Your task to perform on an android device: Go to notification settings Image 0: 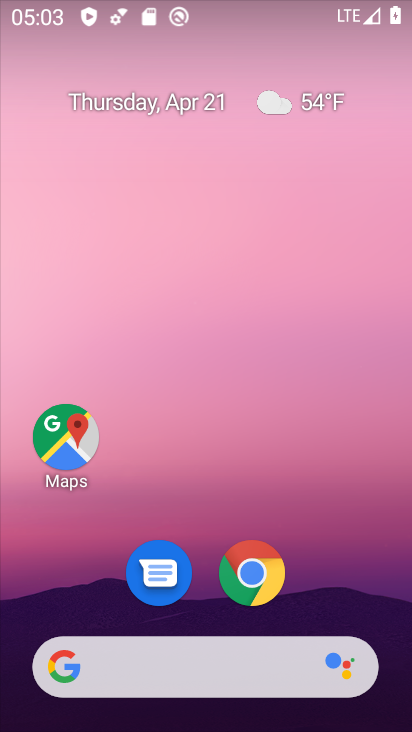
Step 0: drag from (384, 618) to (337, 190)
Your task to perform on an android device: Go to notification settings Image 1: 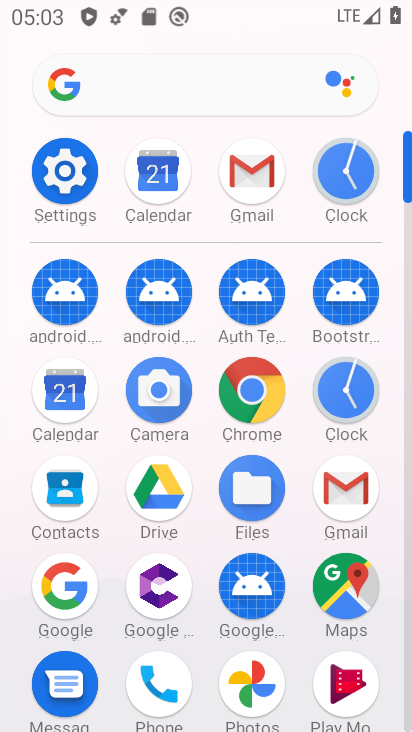
Step 1: click (408, 690)
Your task to perform on an android device: Go to notification settings Image 2: 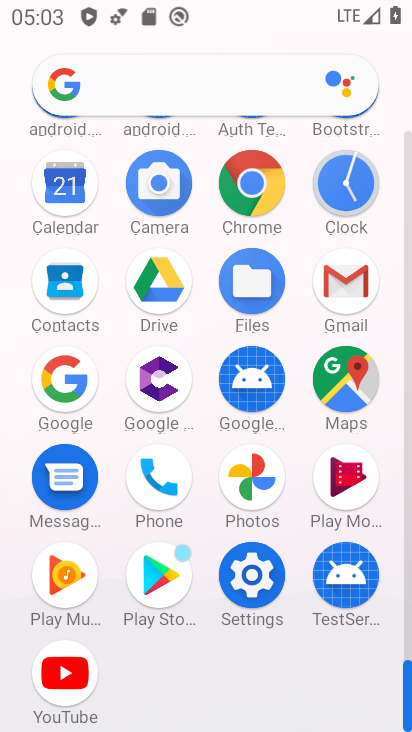
Step 2: click (253, 572)
Your task to perform on an android device: Go to notification settings Image 3: 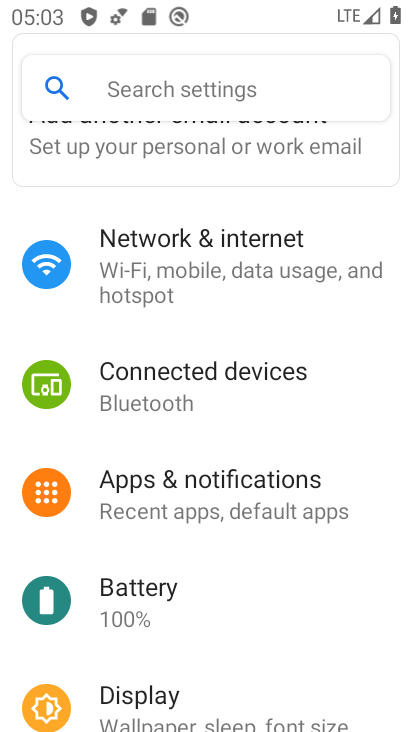
Step 3: click (179, 485)
Your task to perform on an android device: Go to notification settings Image 4: 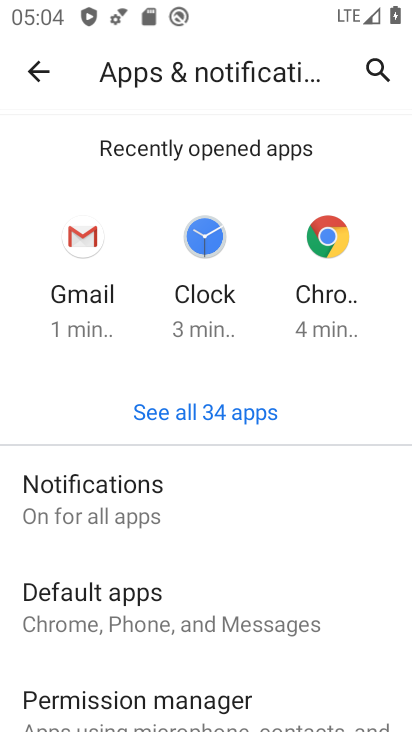
Step 4: click (81, 495)
Your task to perform on an android device: Go to notification settings Image 5: 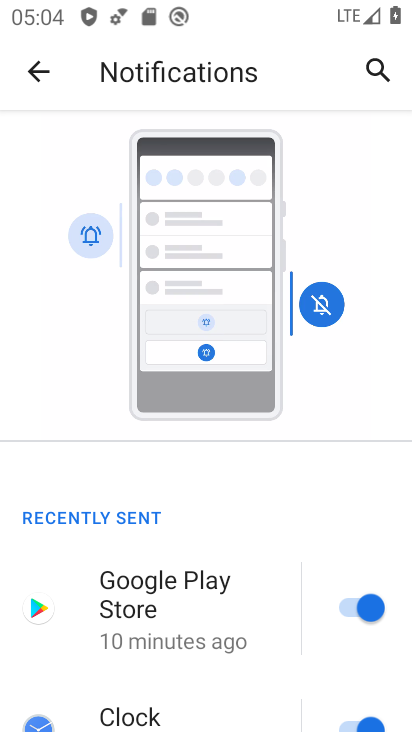
Step 5: drag from (301, 668) to (262, 284)
Your task to perform on an android device: Go to notification settings Image 6: 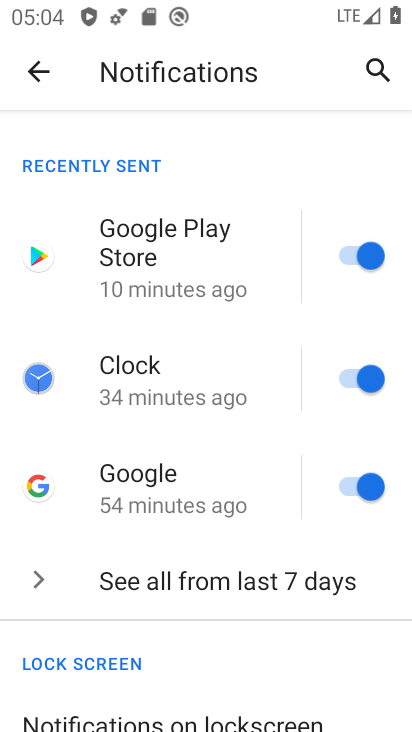
Step 6: drag from (291, 668) to (302, 319)
Your task to perform on an android device: Go to notification settings Image 7: 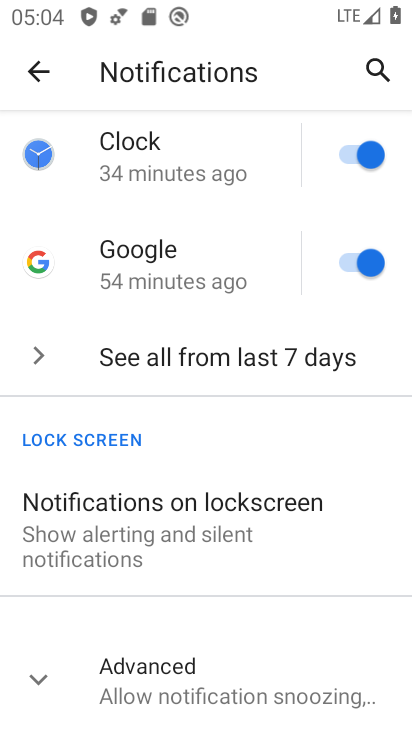
Step 7: click (38, 690)
Your task to perform on an android device: Go to notification settings Image 8: 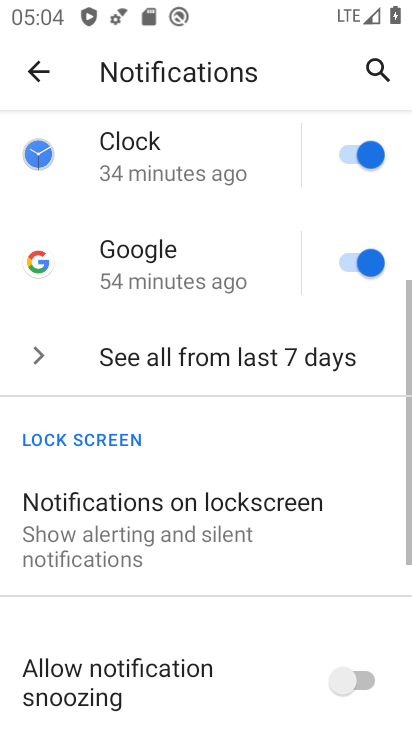
Step 8: task complete